Your task to perform on an android device: make emails show in primary in the gmail app Image 0: 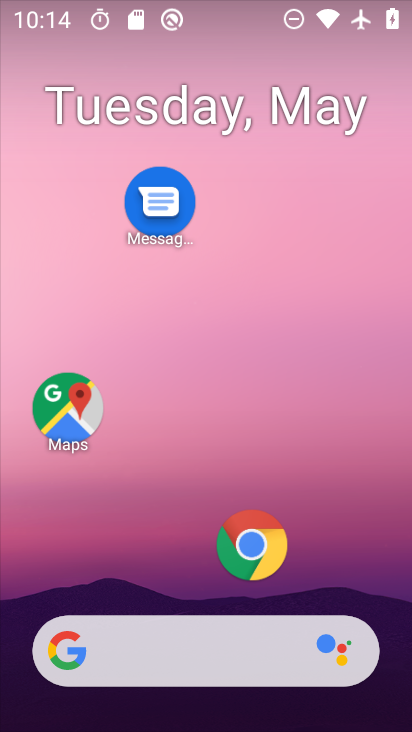
Step 0: drag from (179, 597) to (205, 93)
Your task to perform on an android device: make emails show in primary in the gmail app Image 1: 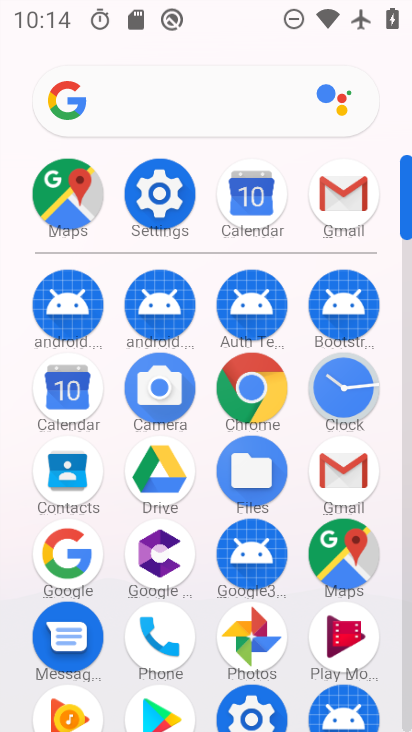
Step 1: click (339, 208)
Your task to perform on an android device: make emails show in primary in the gmail app Image 2: 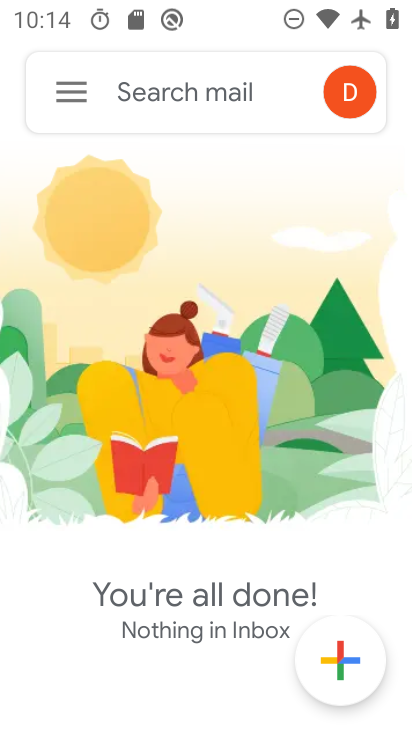
Step 2: click (62, 85)
Your task to perform on an android device: make emails show in primary in the gmail app Image 3: 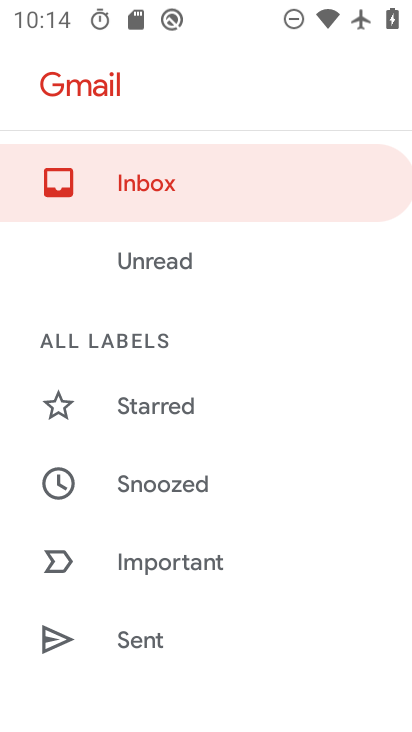
Step 3: drag from (166, 617) to (218, 97)
Your task to perform on an android device: make emails show in primary in the gmail app Image 4: 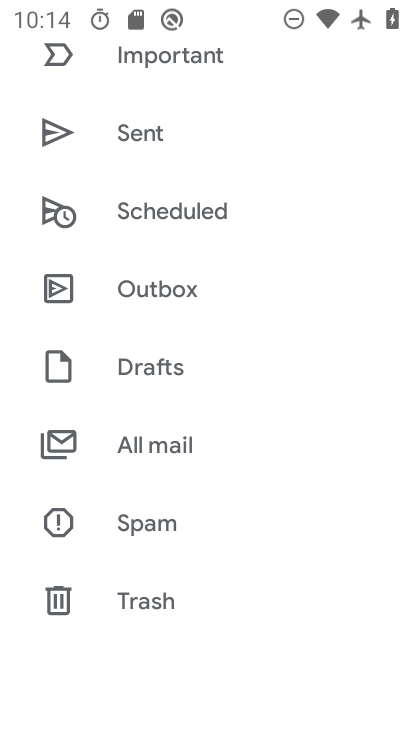
Step 4: drag from (200, 567) to (213, 263)
Your task to perform on an android device: make emails show in primary in the gmail app Image 5: 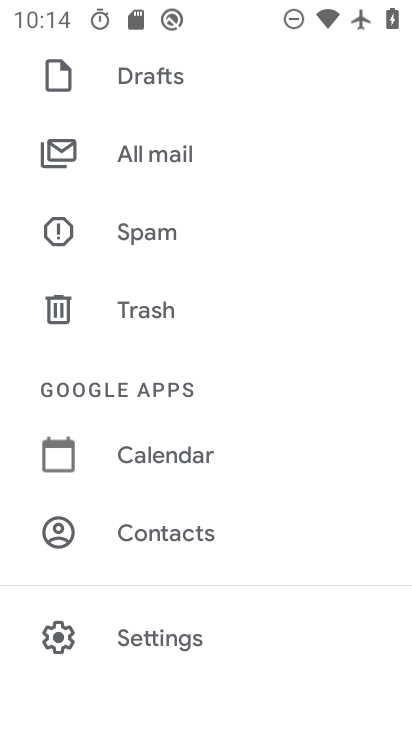
Step 5: click (182, 638)
Your task to perform on an android device: make emails show in primary in the gmail app Image 6: 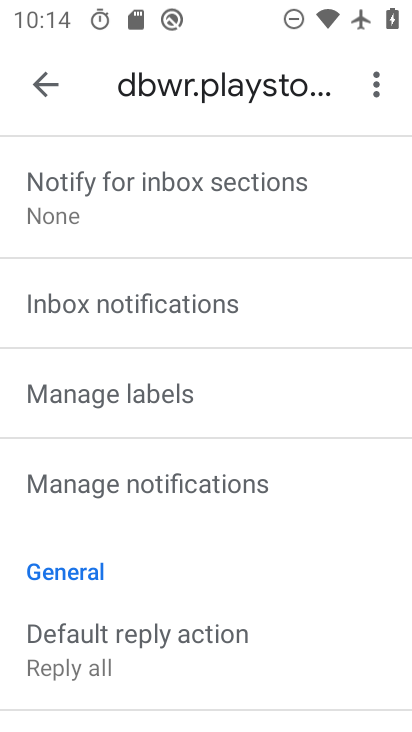
Step 6: drag from (219, 591) to (286, 220)
Your task to perform on an android device: make emails show in primary in the gmail app Image 7: 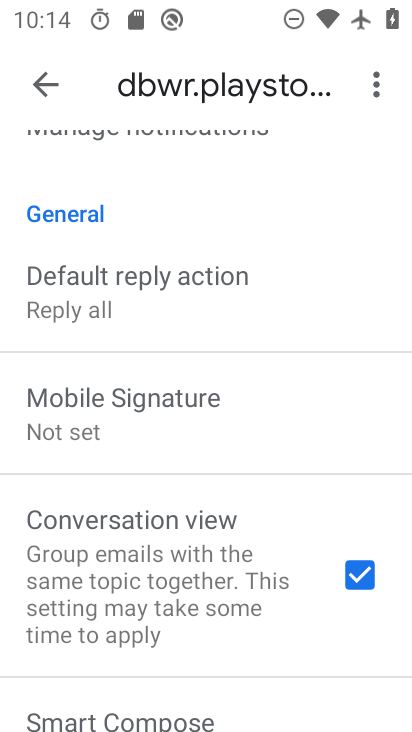
Step 7: drag from (250, 652) to (282, 286)
Your task to perform on an android device: make emails show in primary in the gmail app Image 8: 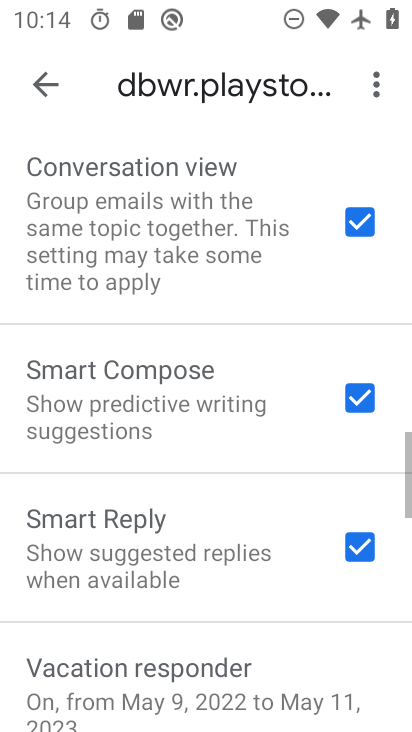
Step 8: drag from (257, 330) to (253, 698)
Your task to perform on an android device: make emails show in primary in the gmail app Image 9: 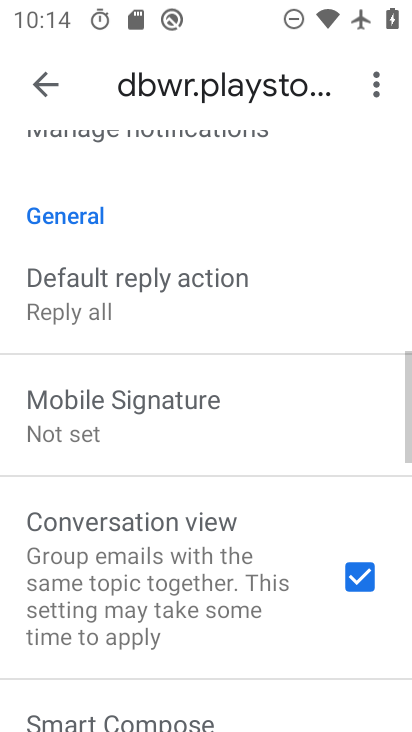
Step 9: drag from (221, 186) to (244, 542)
Your task to perform on an android device: make emails show in primary in the gmail app Image 10: 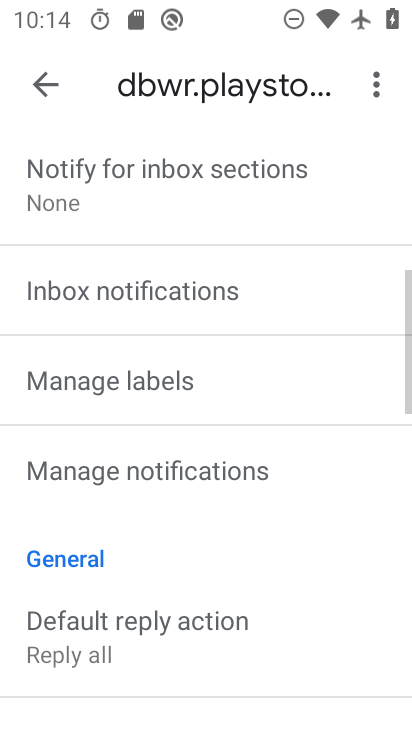
Step 10: drag from (194, 227) to (222, 626)
Your task to perform on an android device: make emails show in primary in the gmail app Image 11: 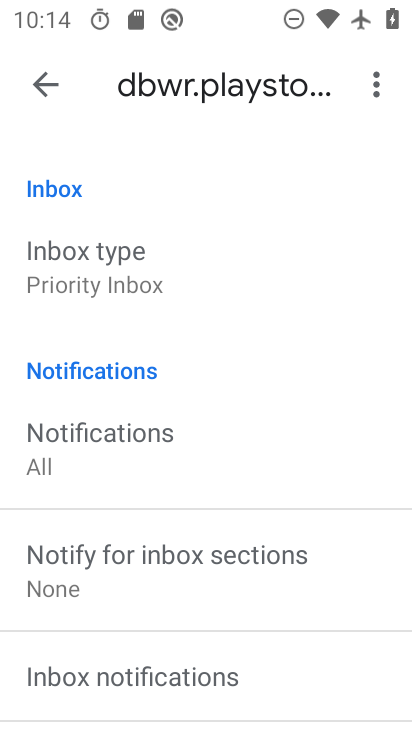
Step 11: click (183, 266)
Your task to perform on an android device: make emails show in primary in the gmail app Image 12: 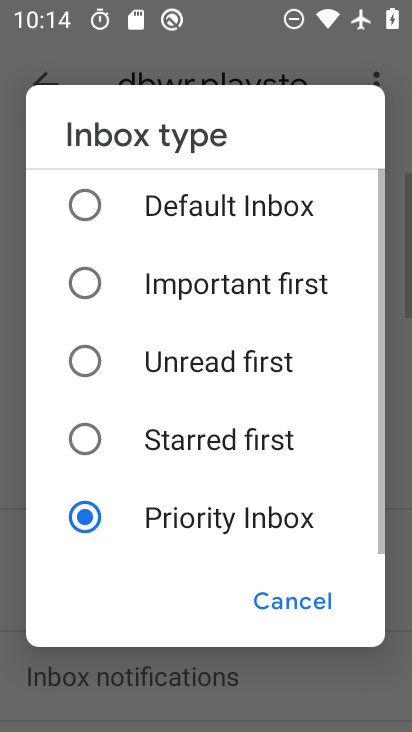
Step 12: click (293, 601)
Your task to perform on an android device: make emails show in primary in the gmail app Image 13: 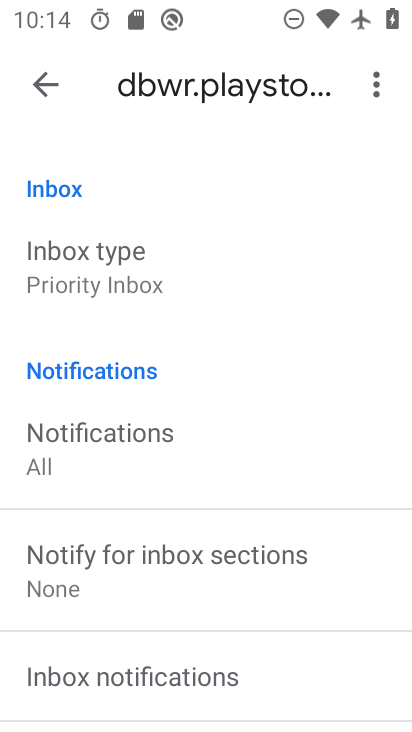
Step 13: drag from (169, 325) to (205, 561)
Your task to perform on an android device: make emails show in primary in the gmail app Image 14: 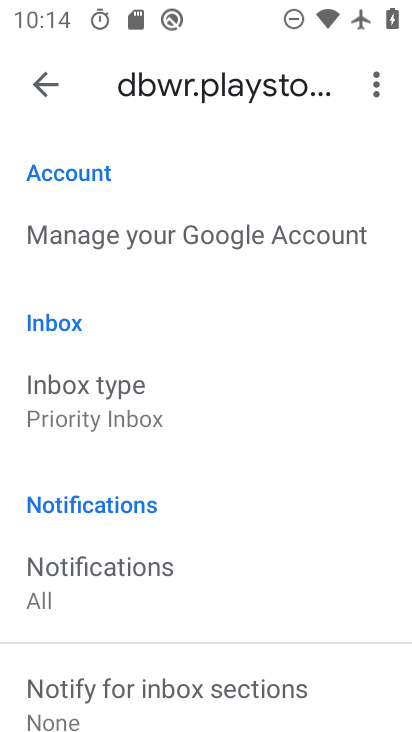
Step 14: drag from (150, 310) to (186, 503)
Your task to perform on an android device: make emails show in primary in the gmail app Image 15: 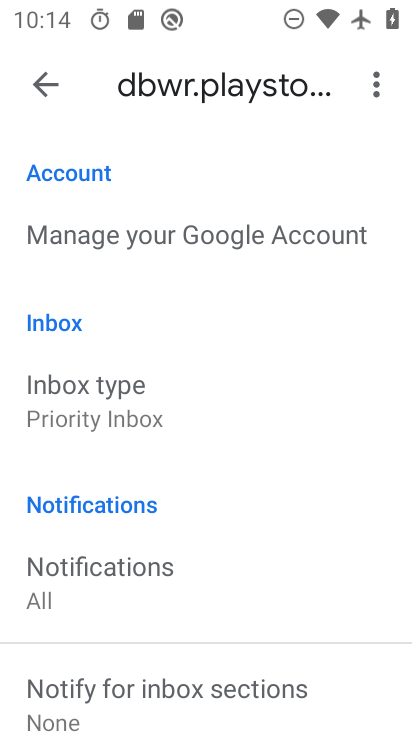
Step 15: click (133, 570)
Your task to perform on an android device: make emails show in primary in the gmail app Image 16: 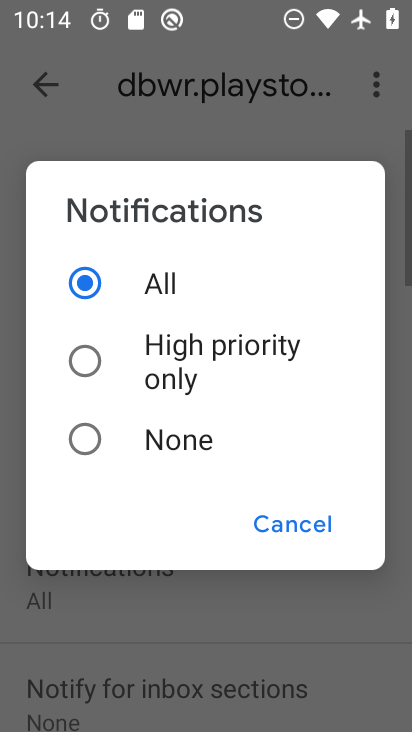
Step 16: click (327, 520)
Your task to perform on an android device: make emails show in primary in the gmail app Image 17: 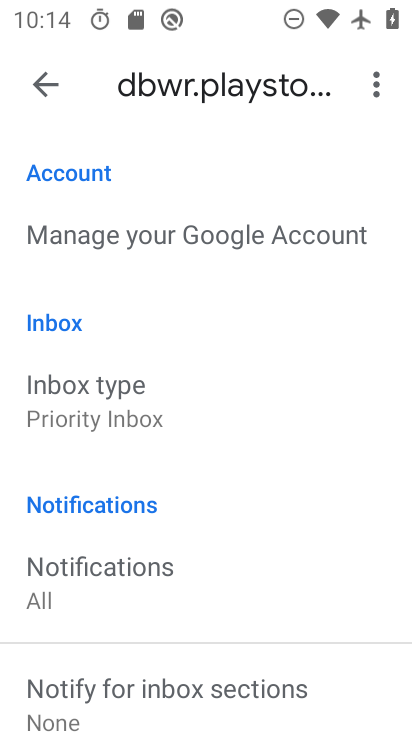
Step 17: click (152, 420)
Your task to perform on an android device: make emails show in primary in the gmail app Image 18: 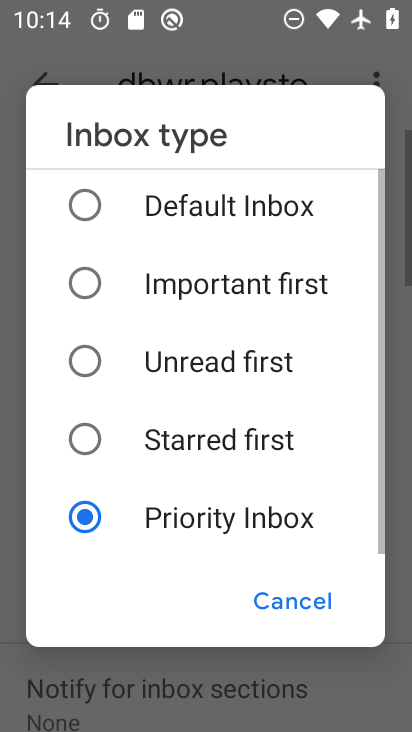
Step 18: click (157, 212)
Your task to perform on an android device: make emails show in primary in the gmail app Image 19: 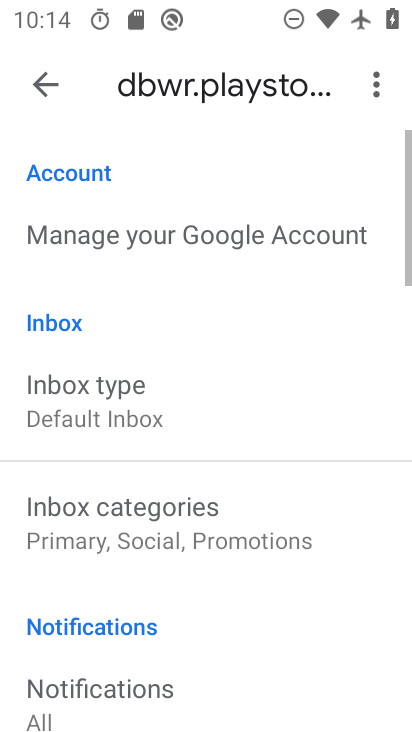
Step 19: click (92, 524)
Your task to perform on an android device: make emails show in primary in the gmail app Image 20: 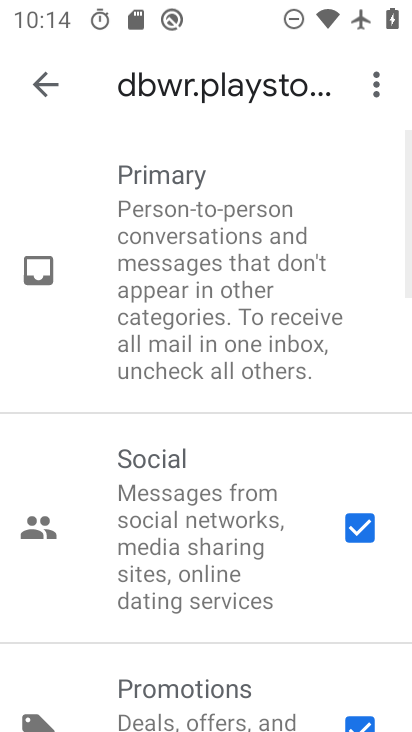
Step 20: click (134, 302)
Your task to perform on an android device: make emails show in primary in the gmail app Image 21: 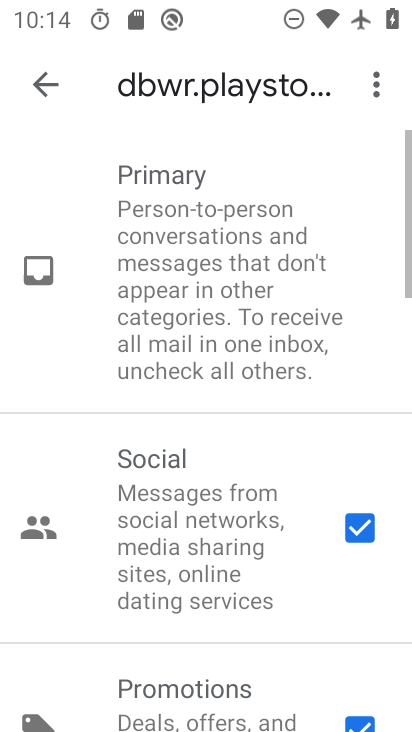
Step 21: task complete